Your task to perform on an android device: Search for dell xps on target.com, select the first entry, add it to the cart, then select checkout. Image 0: 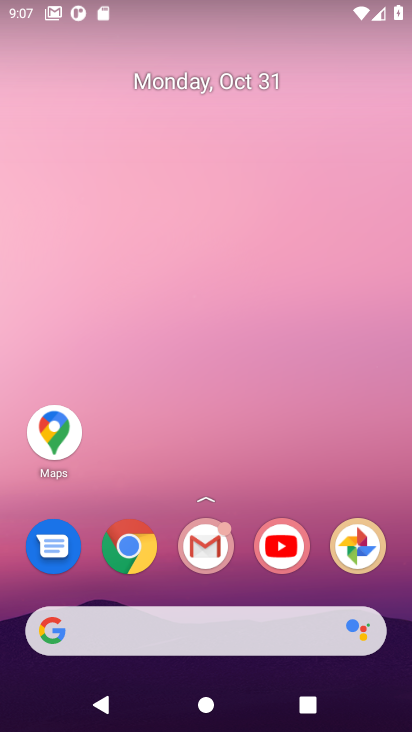
Step 0: drag from (223, 617) to (131, 82)
Your task to perform on an android device: Search for dell xps on target.com, select the first entry, add it to the cart, then select checkout. Image 1: 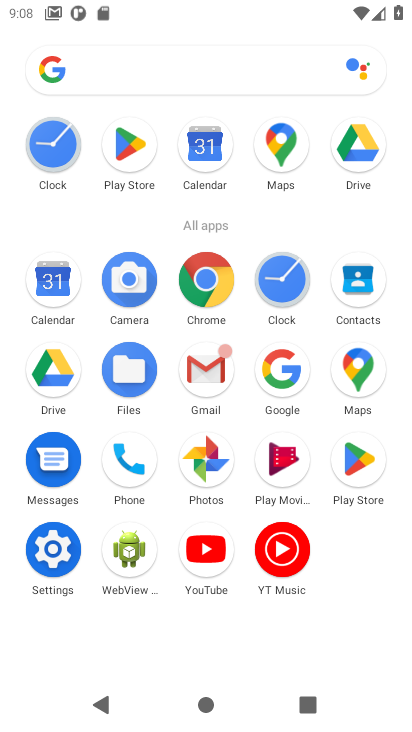
Step 1: click (213, 275)
Your task to perform on an android device: Search for dell xps on target.com, select the first entry, add it to the cart, then select checkout. Image 2: 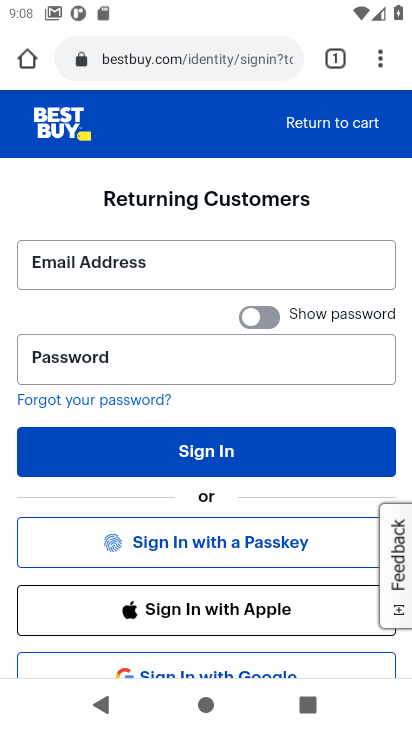
Step 2: click (132, 59)
Your task to perform on an android device: Search for dell xps on target.com, select the first entry, add it to the cart, then select checkout. Image 3: 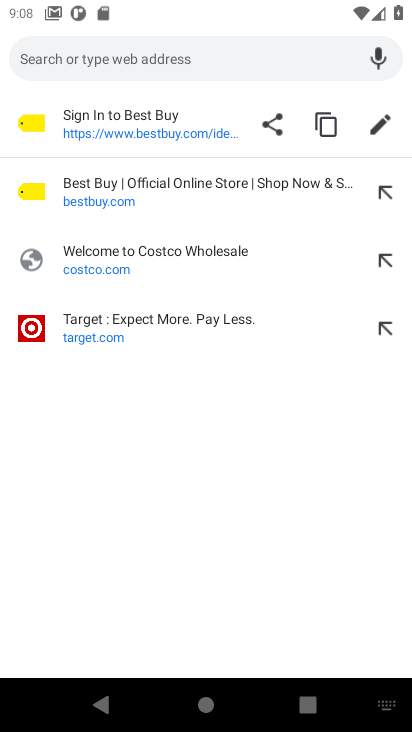
Step 3: click (144, 329)
Your task to perform on an android device: Search for dell xps on target.com, select the first entry, add it to the cart, then select checkout. Image 4: 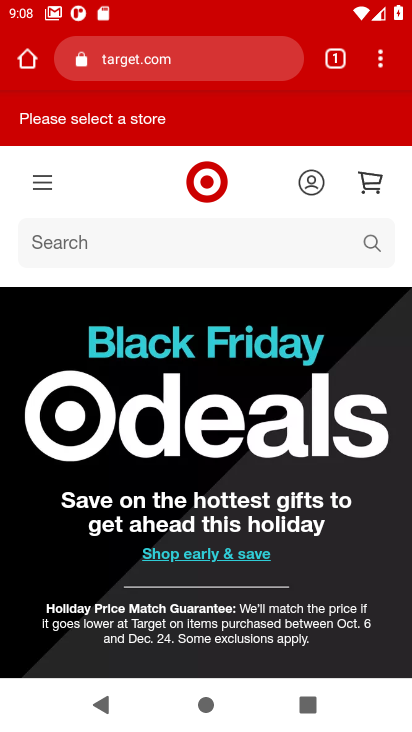
Step 4: click (252, 242)
Your task to perform on an android device: Search for dell xps on target.com, select the first entry, add it to the cart, then select checkout. Image 5: 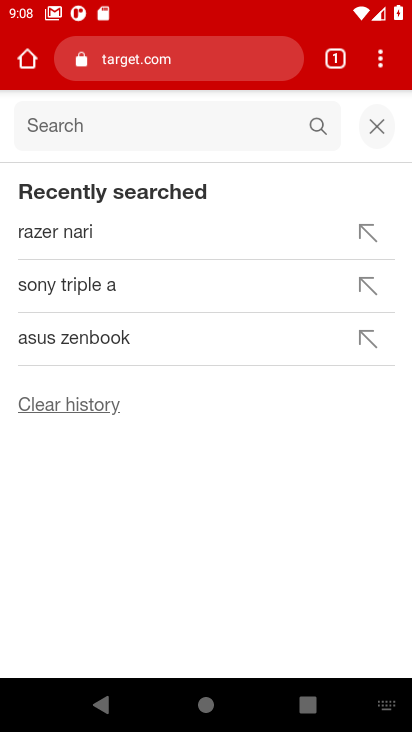
Step 5: type "dell xps"
Your task to perform on an android device: Search for dell xps on target.com, select the first entry, add it to the cart, then select checkout. Image 6: 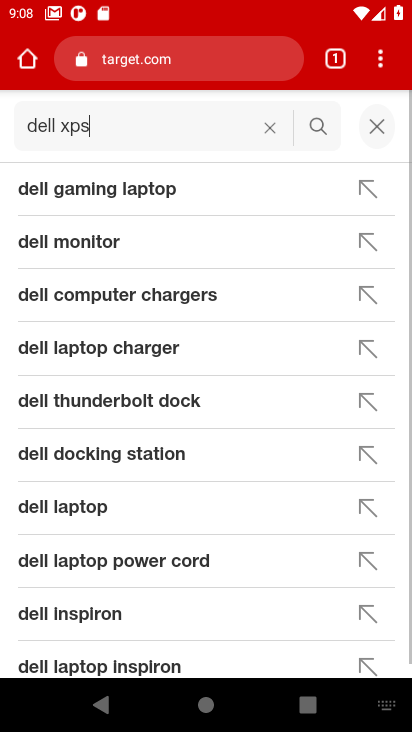
Step 6: press enter
Your task to perform on an android device: Search for dell xps on target.com, select the first entry, add it to the cart, then select checkout. Image 7: 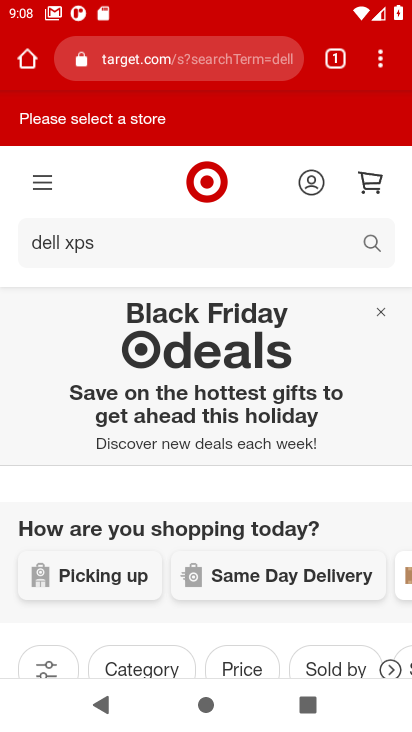
Step 7: drag from (233, 599) to (197, 268)
Your task to perform on an android device: Search for dell xps on target.com, select the first entry, add it to the cart, then select checkout. Image 8: 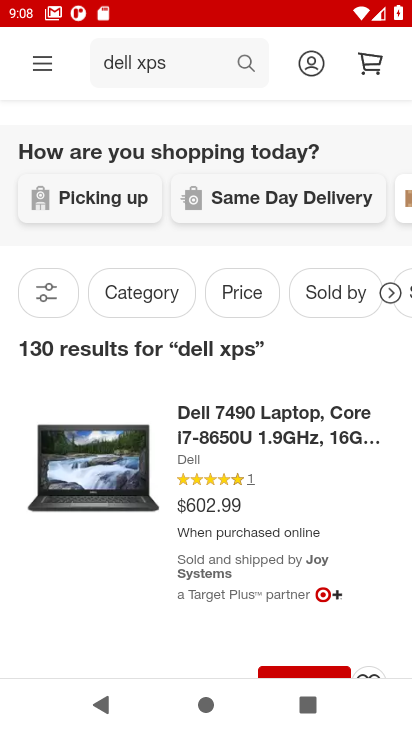
Step 8: drag from (190, 556) to (194, 262)
Your task to perform on an android device: Search for dell xps on target.com, select the first entry, add it to the cart, then select checkout. Image 9: 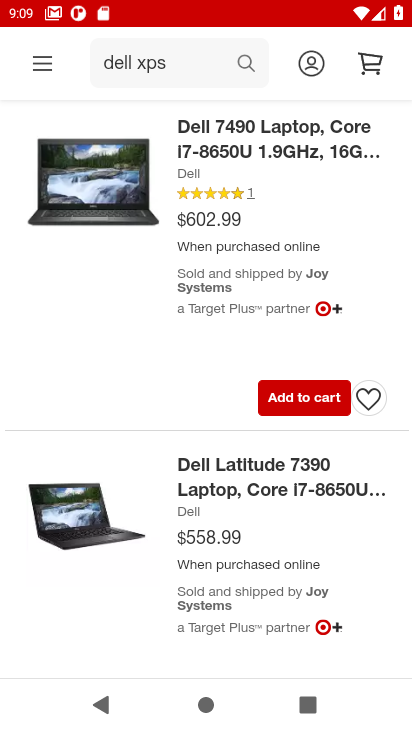
Step 9: click (292, 404)
Your task to perform on an android device: Search for dell xps on target.com, select the first entry, add it to the cart, then select checkout. Image 10: 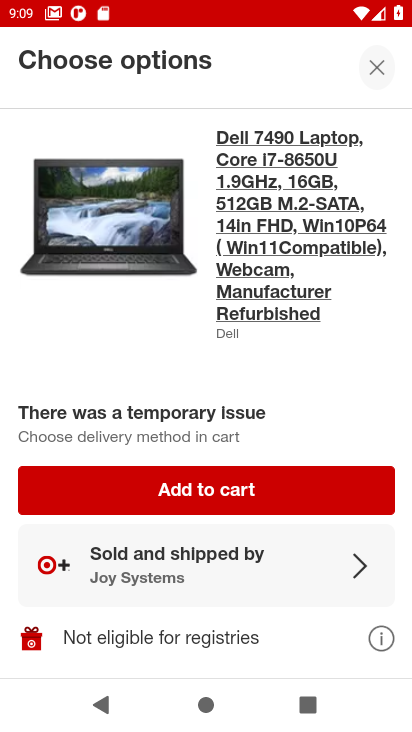
Step 10: click (214, 493)
Your task to perform on an android device: Search for dell xps on target.com, select the first entry, add it to the cart, then select checkout. Image 11: 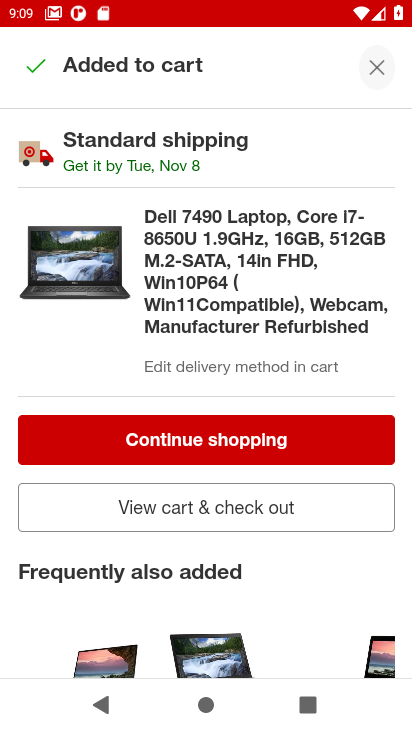
Step 11: click (206, 510)
Your task to perform on an android device: Search for dell xps on target.com, select the first entry, add it to the cart, then select checkout. Image 12: 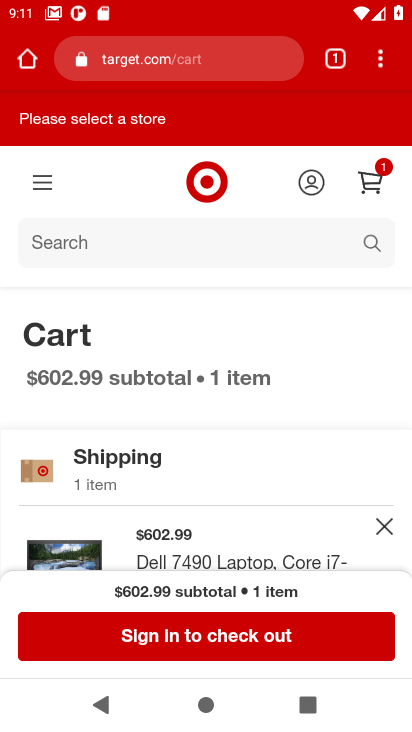
Step 12: task complete